Your task to perform on an android device: turn smart compose on in the gmail app Image 0: 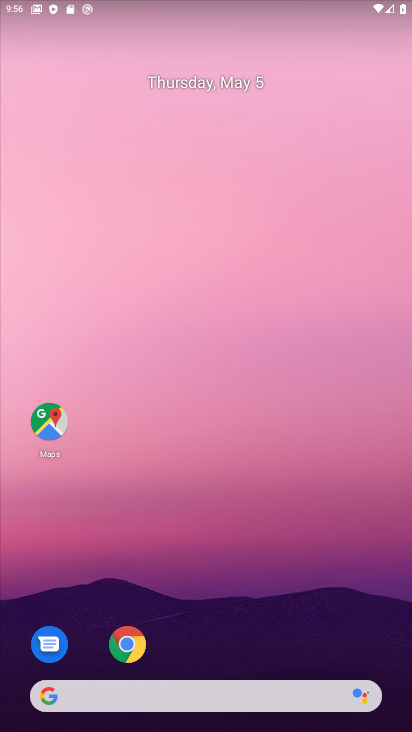
Step 0: drag from (232, 677) to (254, 138)
Your task to perform on an android device: turn smart compose on in the gmail app Image 1: 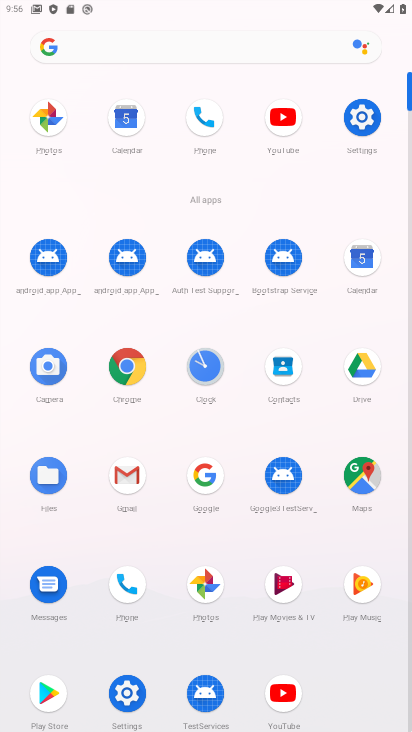
Step 1: click (128, 486)
Your task to perform on an android device: turn smart compose on in the gmail app Image 2: 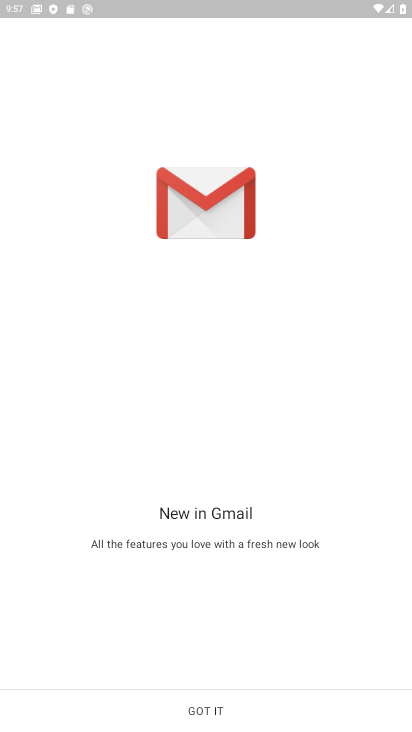
Step 2: click (199, 702)
Your task to perform on an android device: turn smart compose on in the gmail app Image 3: 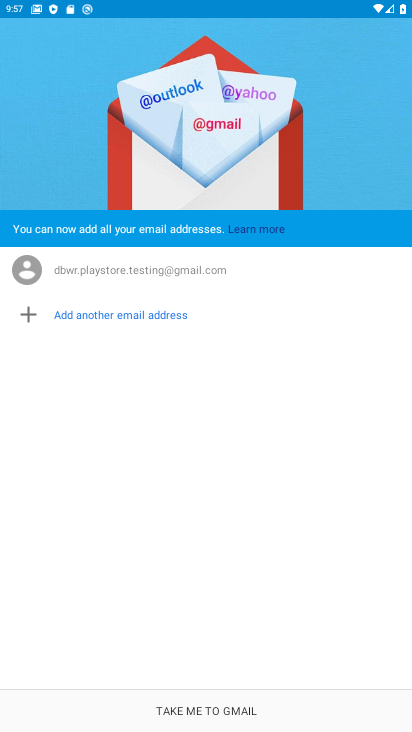
Step 3: click (199, 702)
Your task to perform on an android device: turn smart compose on in the gmail app Image 4: 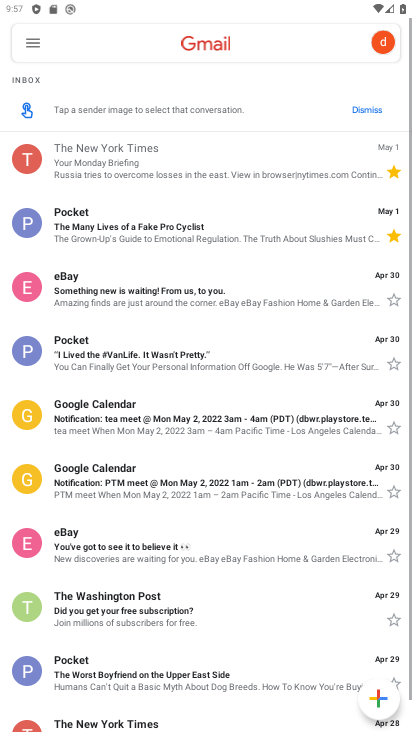
Step 4: click (27, 36)
Your task to perform on an android device: turn smart compose on in the gmail app Image 5: 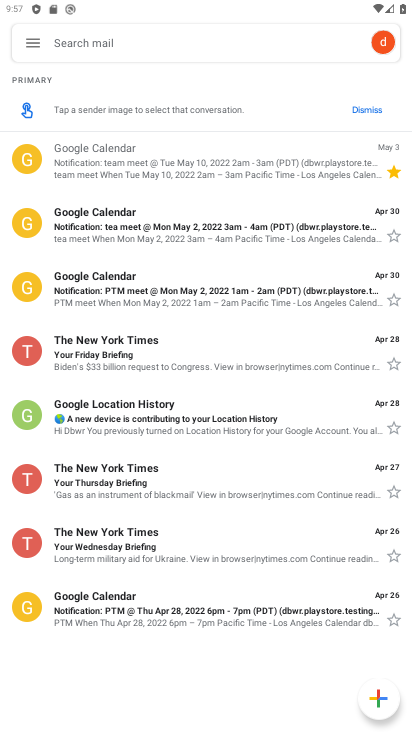
Step 5: click (31, 42)
Your task to perform on an android device: turn smart compose on in the gmail app Image 6: 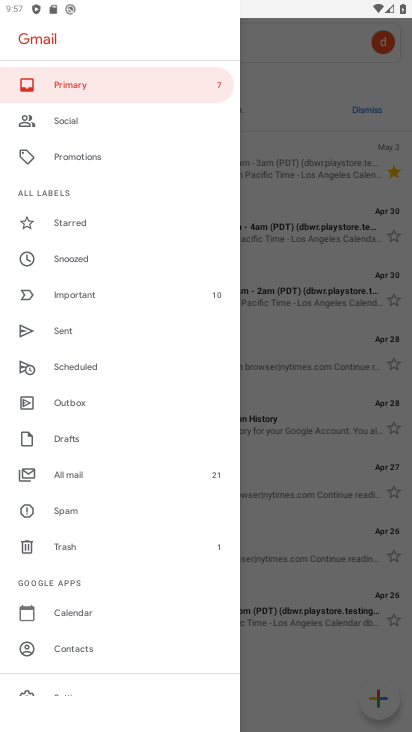
Step 6: click (27, 684)
Your task to perform on an android device: turn smart compose on in the gmail app Image 7: 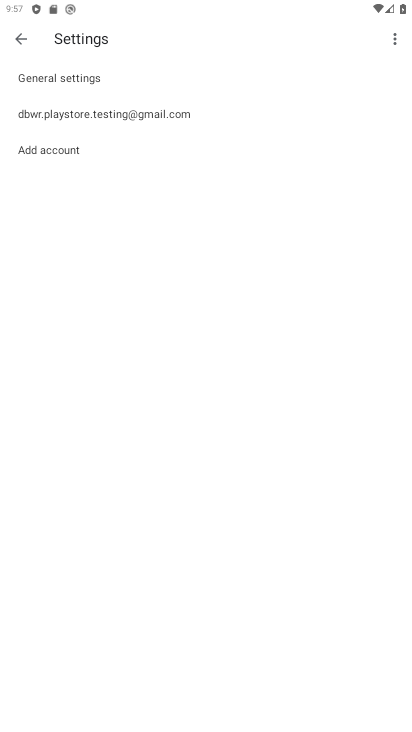
Step 7: click (26, 111)
Your task to perform on an android device: turn smart compose on in the gmail app Image 8: 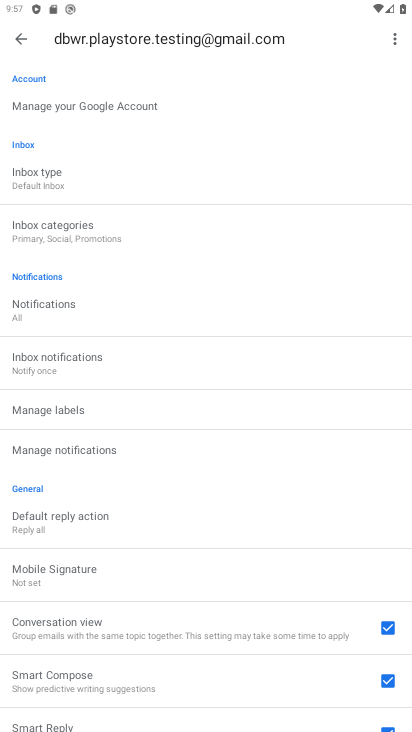
Step 8: task complete